Your task to perform on an android device: Empty the shopping cart on amazon.com. Search for acer nitro on amazon.com, select the first entry, and add it to the cart. Image 0: 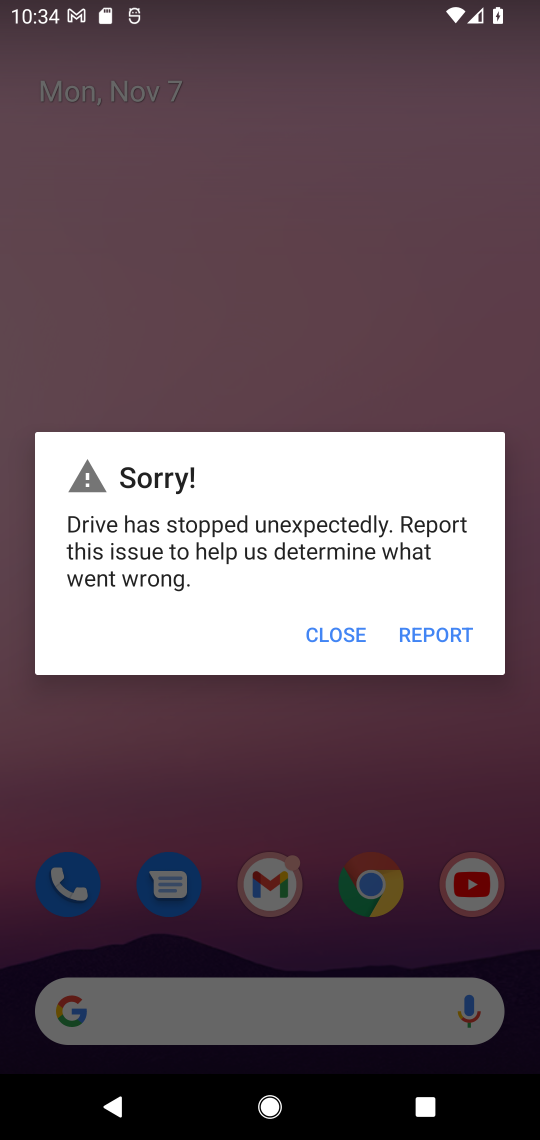
Step 0: press home button
Your task to perform on an android device: Empty the shopping cart on amazon.com. Search for acer nitro on amazon.com, select the first entry, and add it to the cart. Image 1: 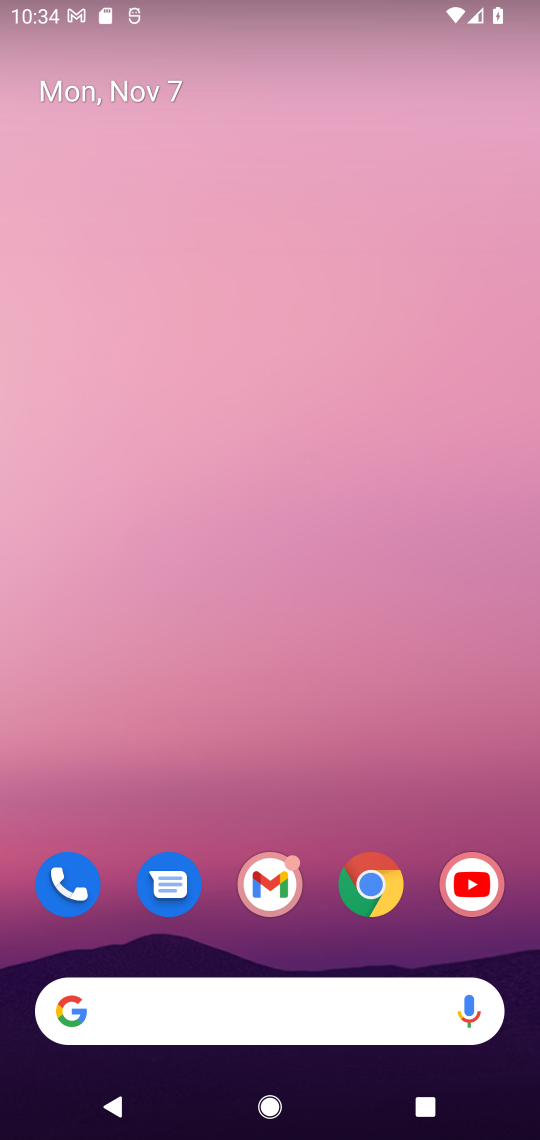
Step 1: click (376, 878)
Your task to perform on an android device: Empty the shopping cart on amazon.com. Search for acer nitro on amazon.com, select the first entry, and add it to the cart. Image 2: 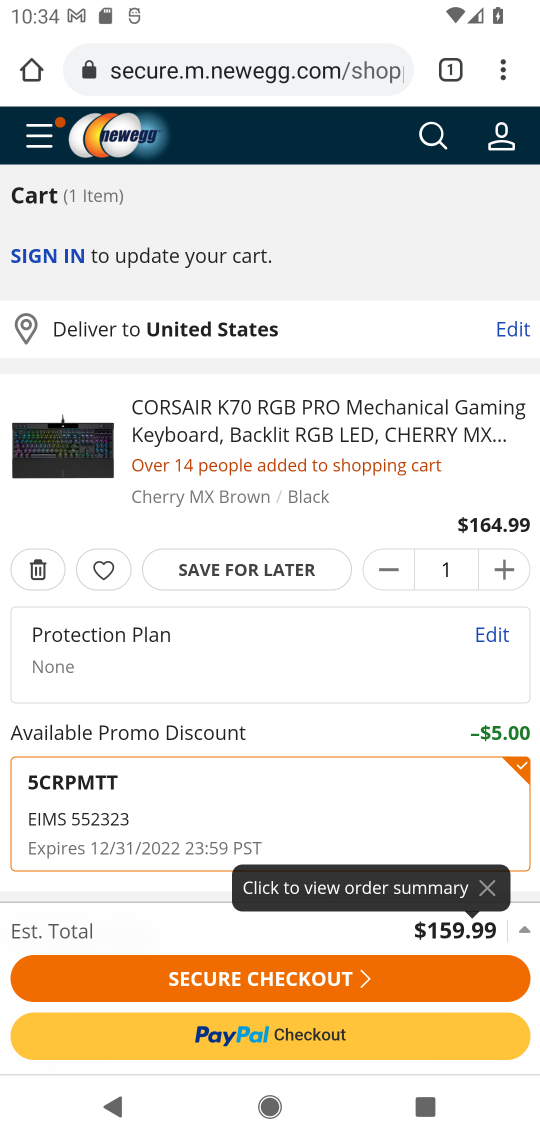
Step 2: click (279, 69)
Your task to perform on an android device: Empty the shopping cart on amazon.com. Search for acer nitro on amazon.com, select the first entry, and add it to the cart. Image 3: 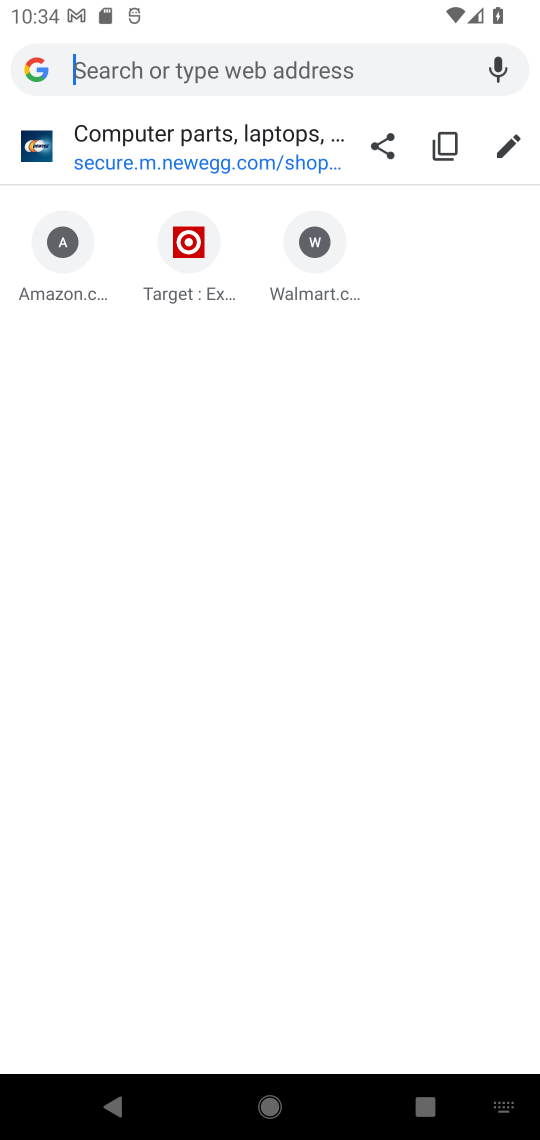
Step 3: click (68, 223)
Your task to perform on an android device: Empty the shopping cart on amazon.com. Search for acer nitro on amazon.com, select the first entry, and add it to the cart. Image 4: 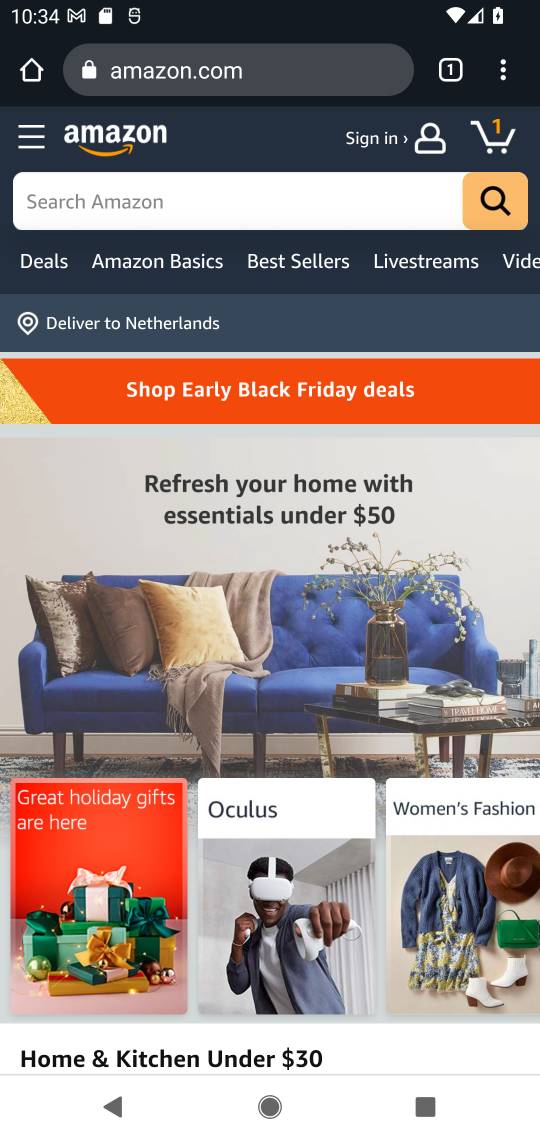
Step 4: click (496, 137)
Your task to perform on an android device: Empty the shopping cart on amazon.com. Search for acer nitro on amazon.com, select the first entry, and add it to the cart. Image 5: 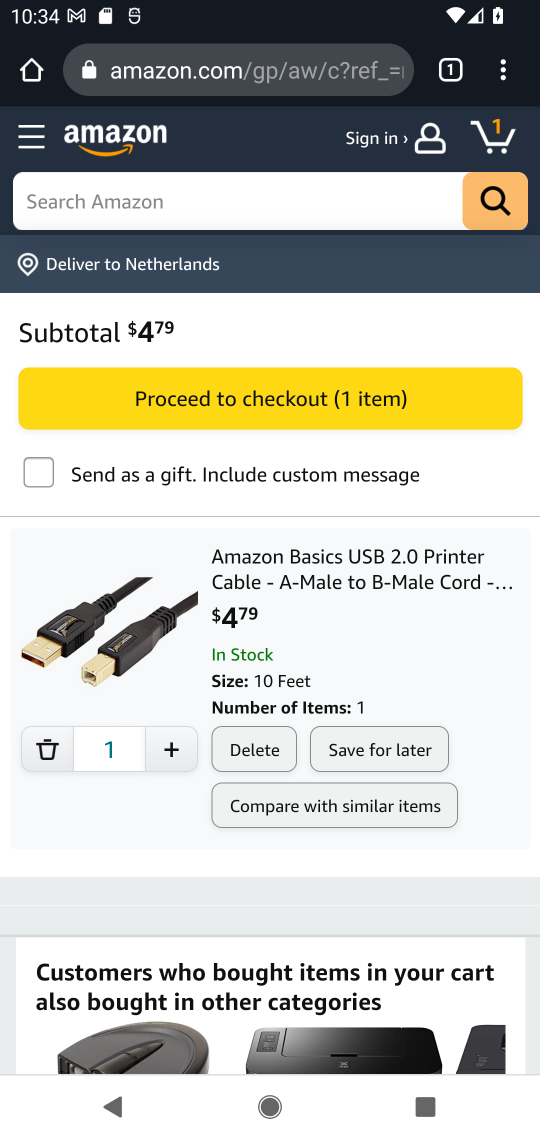
Step 5: click (255, 747)
Your task to perform on an android device: Empty the shopping cart on amazon.com. Search for acer nitro on amazon.com, select the first entry, and add it to the cart. Image 6: 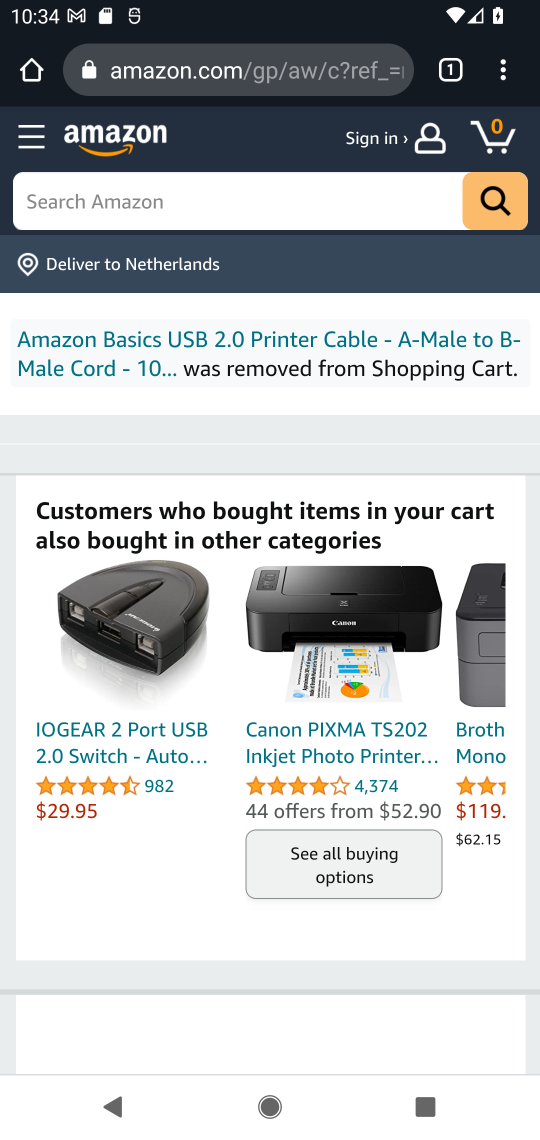
Step 6: click (287, 195)
Your task to perform on an android device: Empty the shopping cart on amazon.com. Search for acer nitro on amazon.com, select the first entry, and add it to the cart. Image 7: 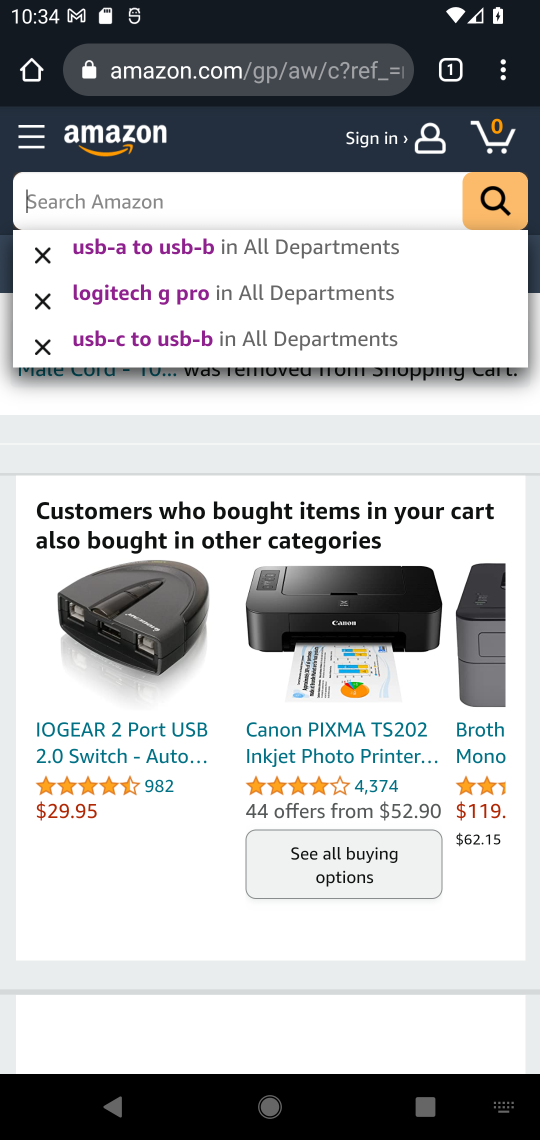
Step 7: type "acer nitro"
Your task to perform on an android device: Empty the shopping cart on amazon.com. Search for acer nitro on amazon.com, select the first entry, and add it to the cart. Image 8: 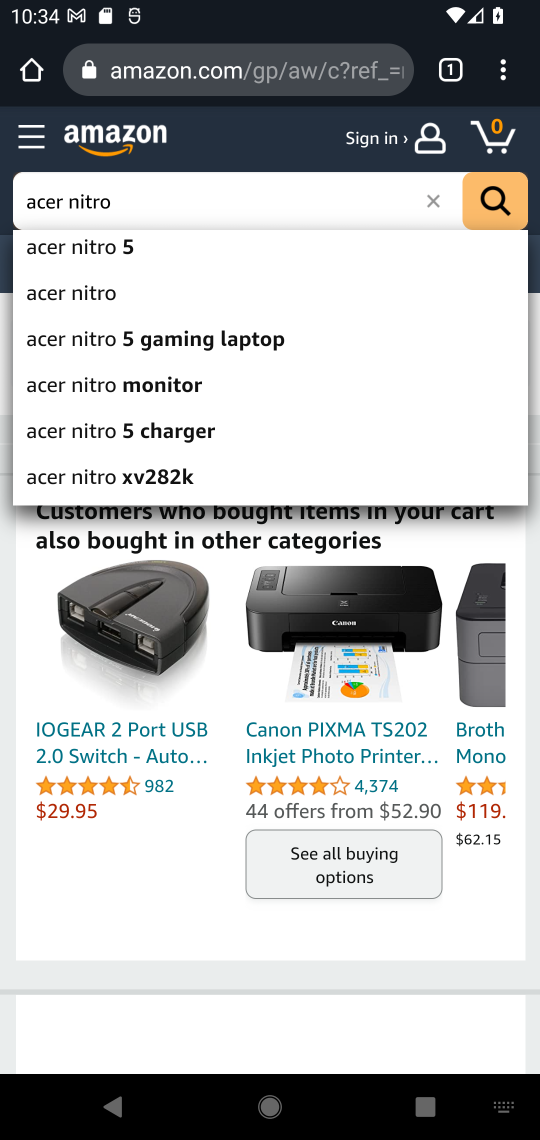
Step 8: click (75, 287)
Your task to perform on an android device: Empty the shopping cart on amazon.com. Search for acer nitro on amazon.com, select the first entry, and add it to the cart. Image 9: 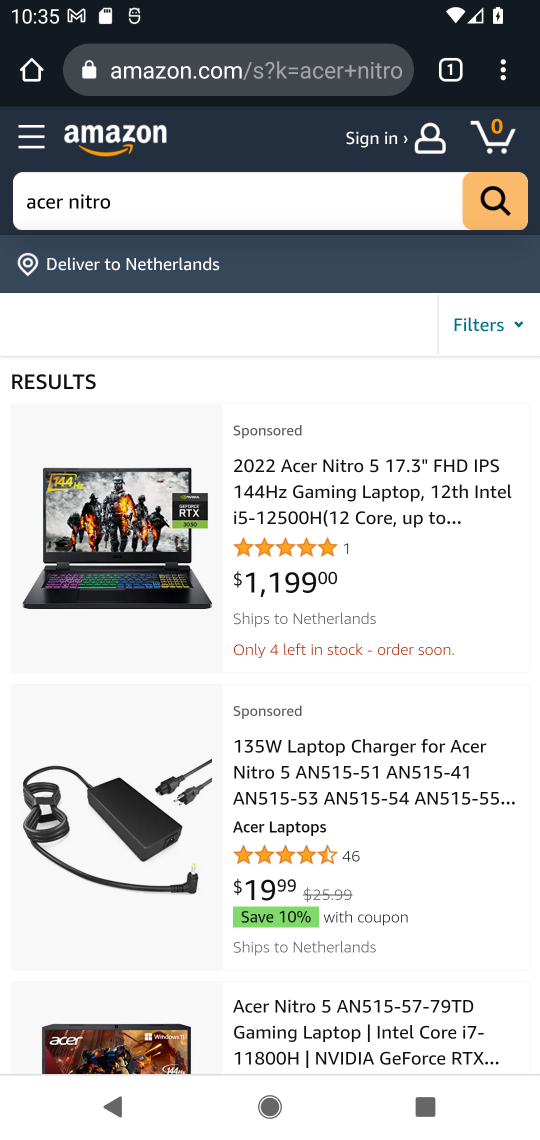
Step 9: click (103, 574)
Your task to perform on an android device: Empty the shopping cart on amazon.com. Search for acer nitro on amazon.com, select the first entry, and add it to the cart. Image 10: 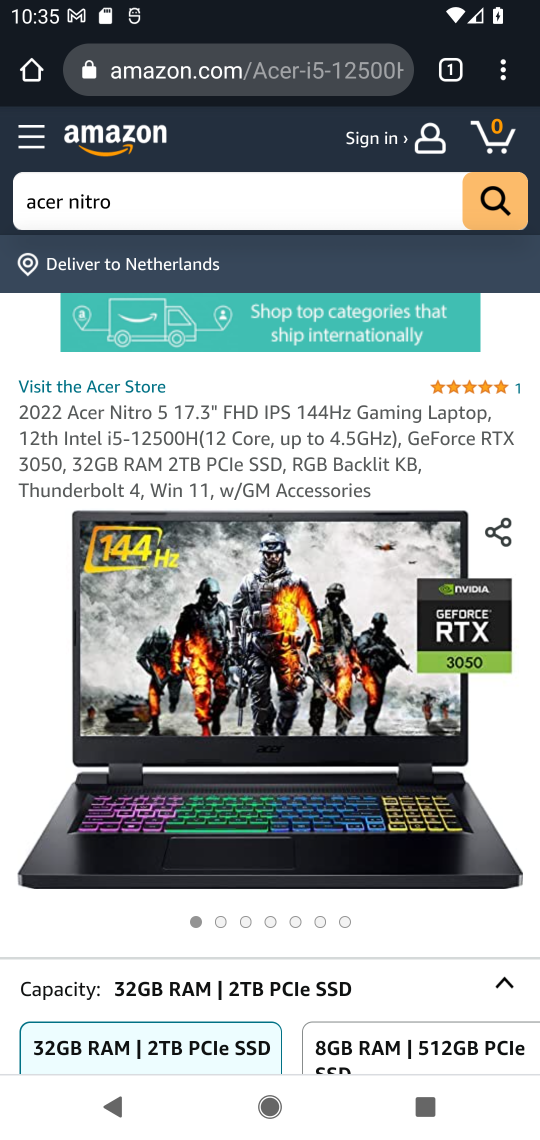
Step 10: drag from (231, 893) to (124, 428)
Your task to perform on an android device: Empty the shopping cart on amazon.com. Search for acer nitro on amazon.com, select the first entry, and add it to the cart. Image 11: 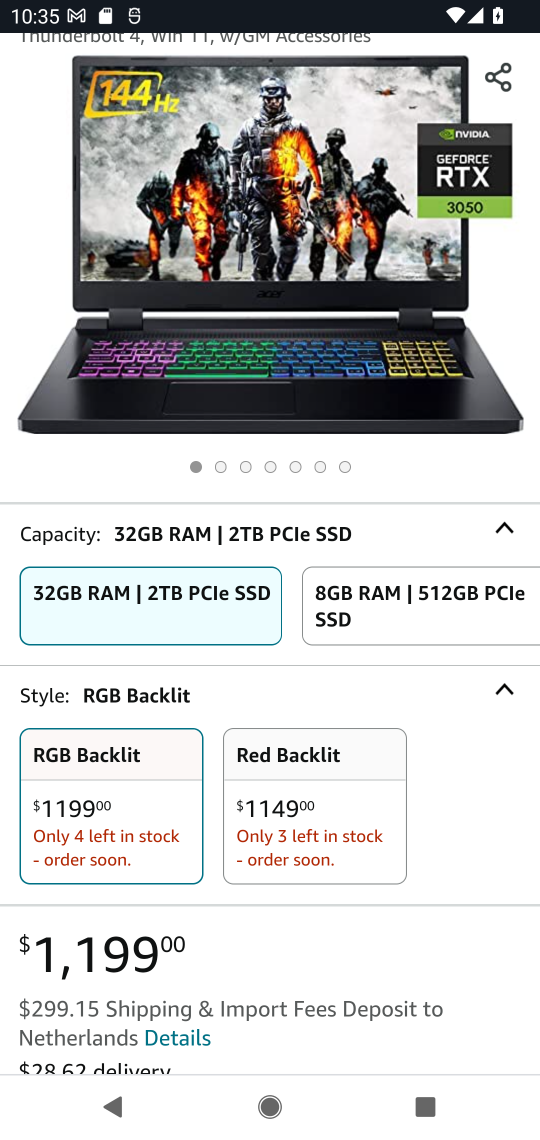
Step 11: drag from (470, 842) to (397, 411)
Your task to perform on an android device: Empty the shopping cart on amazon.com. Search for acer nitro on amazon.com, select the first entry, and add it to the cart. Image 12: 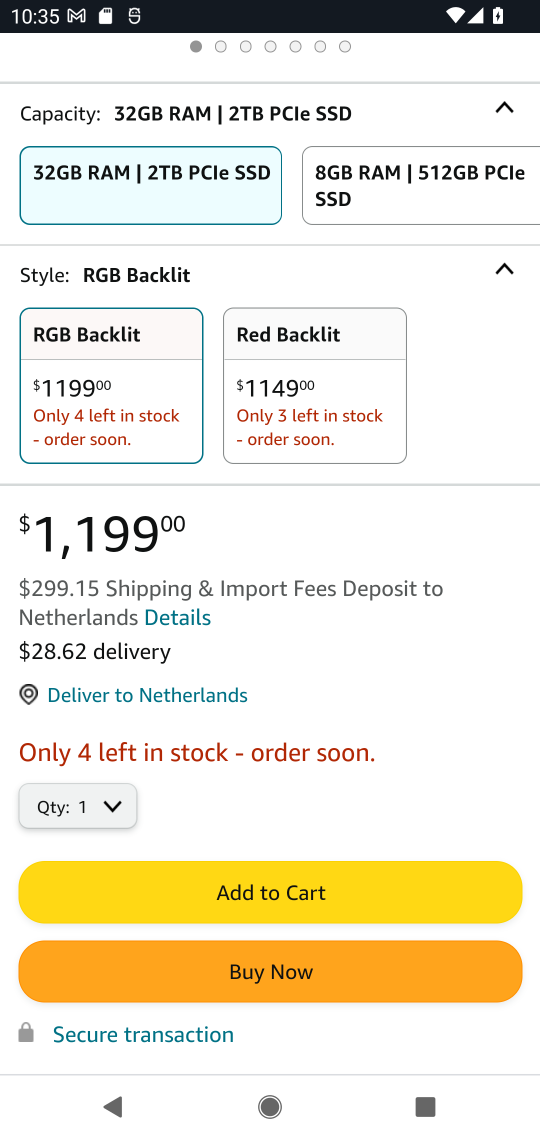
Step 12: click (301, 895)
Your task to perform on an android device: Empty the shopping cart on amazon.com. Search for acer nitro on amazon.com, select the first entry, and add it to the cart. Image 13: 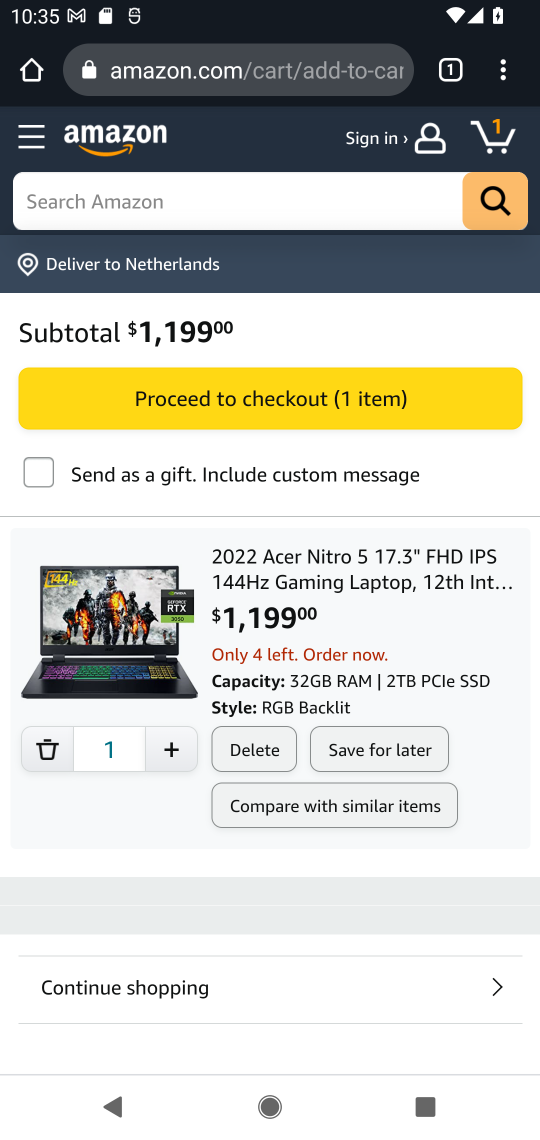
Step 13: task complete